Your task to perform on an android device: turn off priority inbox in the gmail app Image 0: 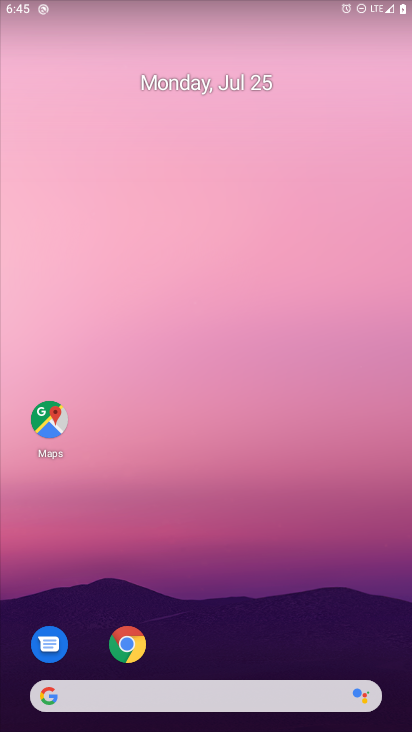
Step 0: drag from (259, 644) to (247, 290)
Your task to perform on an android device: turn off priority inbox in the gmail app Image 1: 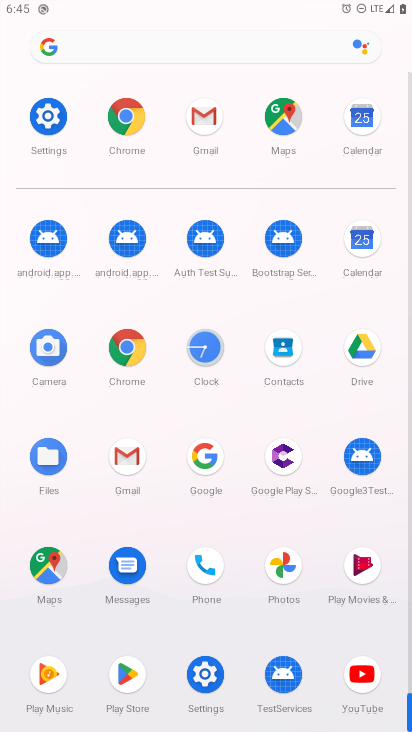
Step 1: click (198, 112)
Your task to perform on an android device: turn off priority inbox in the gmail app Image 2: 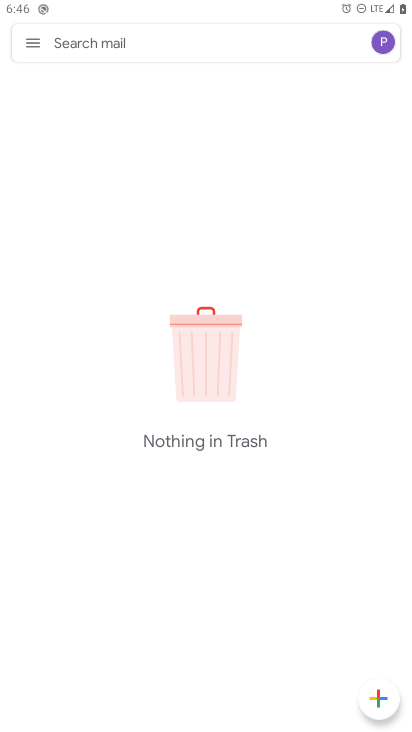
Step 2: click (36, 42)
Your task to perform on an android device: turn off priority inbox in the gmail app Image 3: 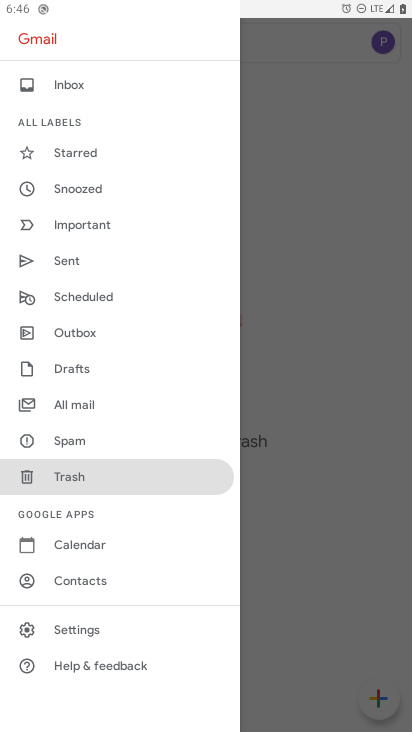
Step 3: click (95, 627)
Your task to perform on an android device: turn off priority inbox in the gmail app Image 4: 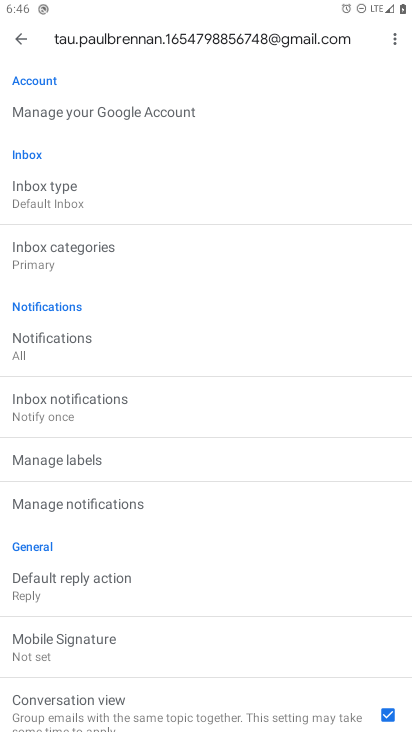
Step 4: click (72, 197)
Your task to perform on an android device: turn off priority inbox in the gmail app Image 5: 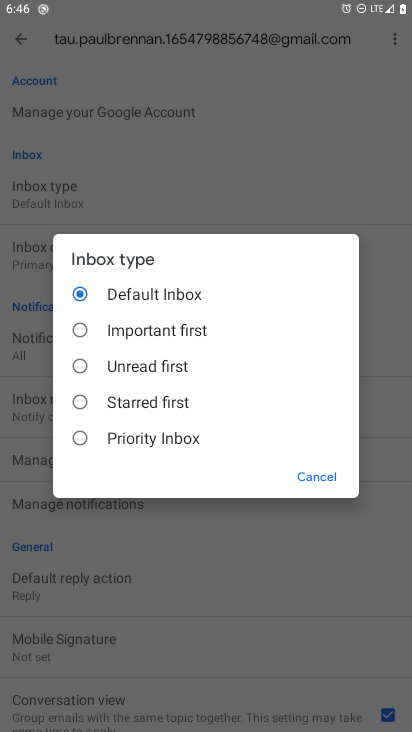
Step 5: click (78, 335)
Your task to perform on an android device: turn off priority inbox in the gmail app Image 6: 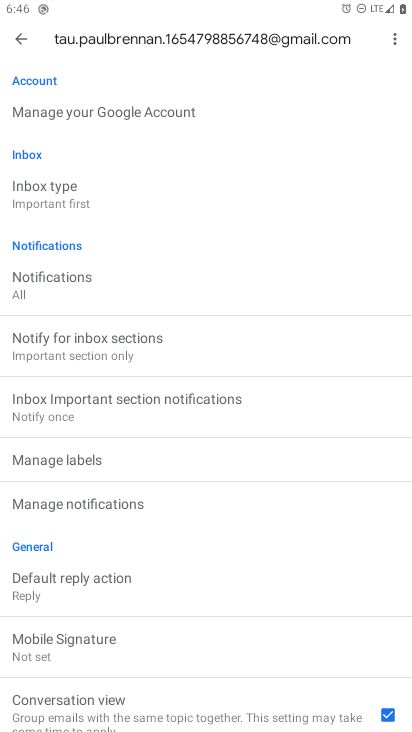
Step 6: task complete